Your task to perform on an android device: toggle sleep mode Image 0: 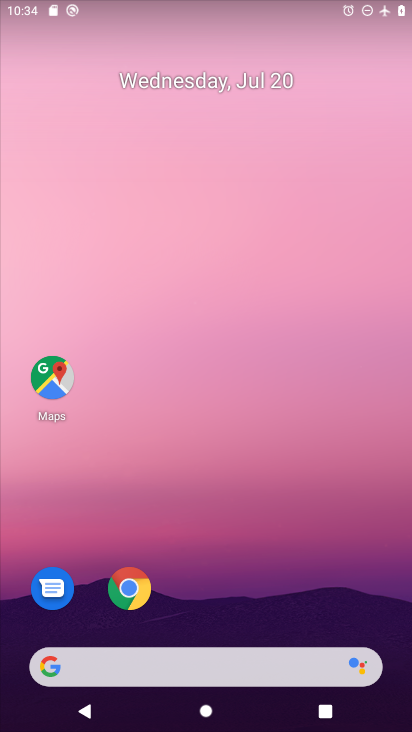
Step 0: drag from (227, 620) to (233, 23)
Your task to perform on an android device: toggle sleep mode Image 1: 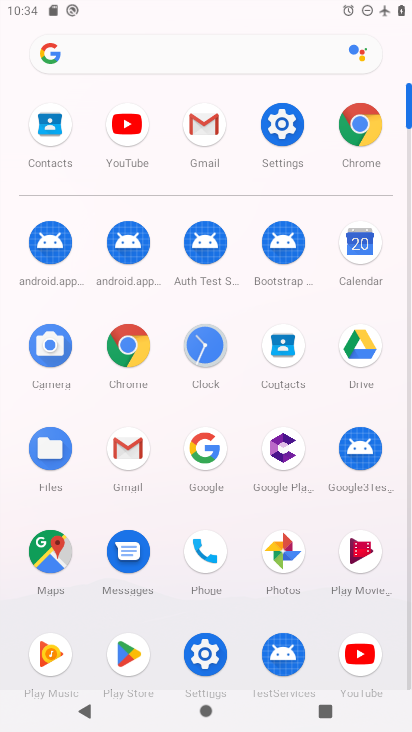
Step 1: click (201, 637)
Your task to perform on an android device: toggle sleep mode Image 2: 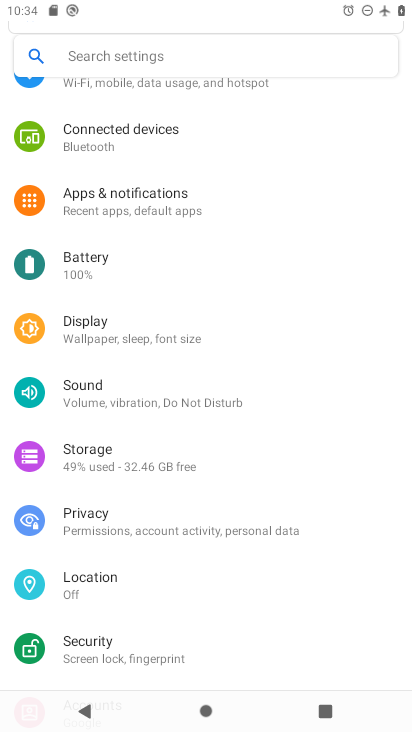
Step 2: task complete